Your task to perform on an android device: Go to eBay Image 0: 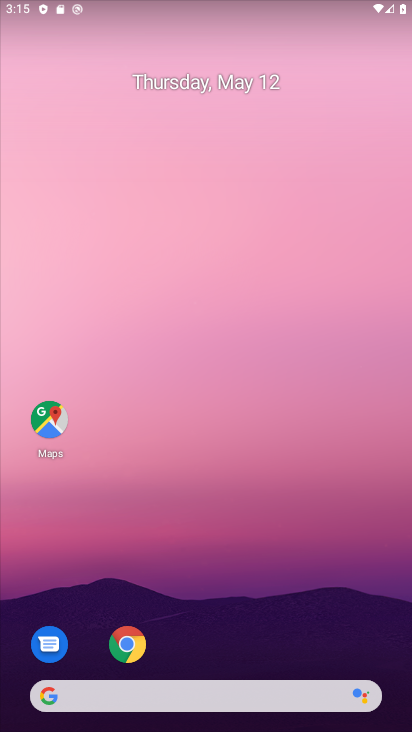
Step 0: click (118, 652)
Your task to perform on an android device: Go to eBay Image 1: 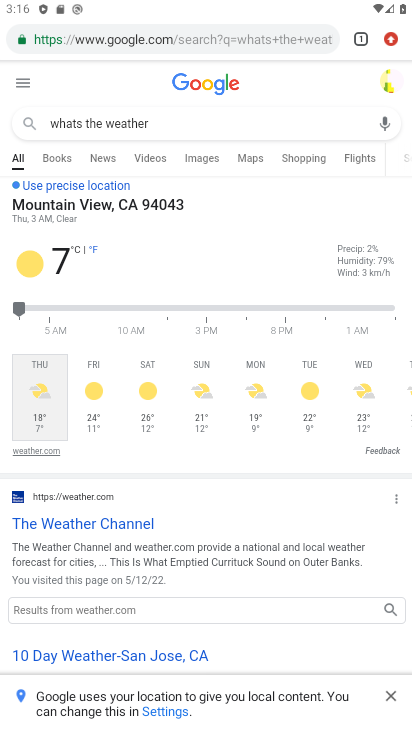
Step 1: click (158, 44)
Your task to perform on an android device: Go to eBay Image 2: 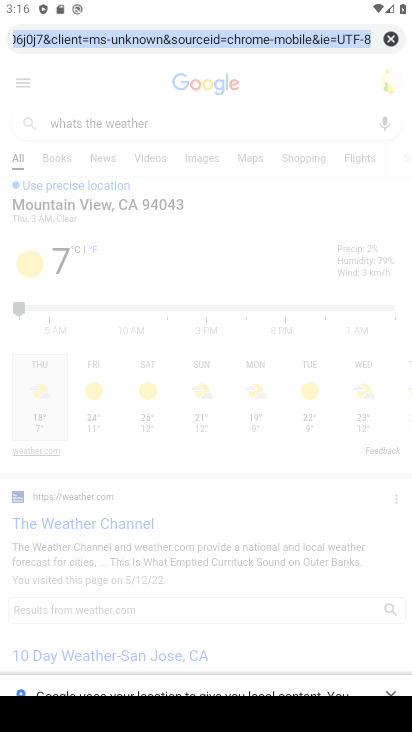
Step 2: type "ebay"
Your task to perform on an android device: Go to eBay Image 3: 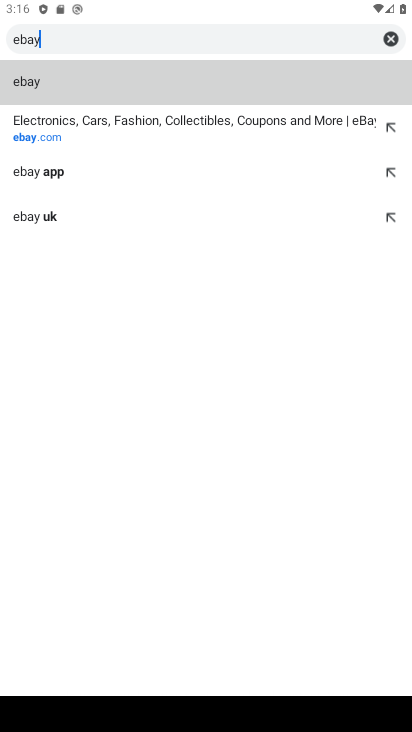
Step 3: click (44, 69)
Your task to perform on an android device: Go to eBay Image 4: 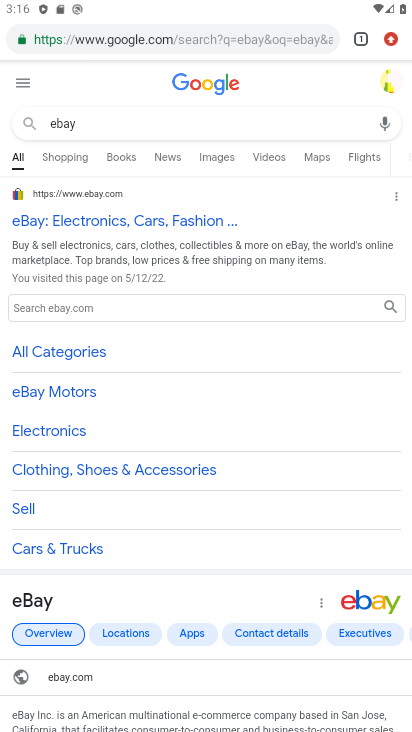
Step 4: click (84, 223)
Your task to perform on an android device: Go to eBay Image 5: 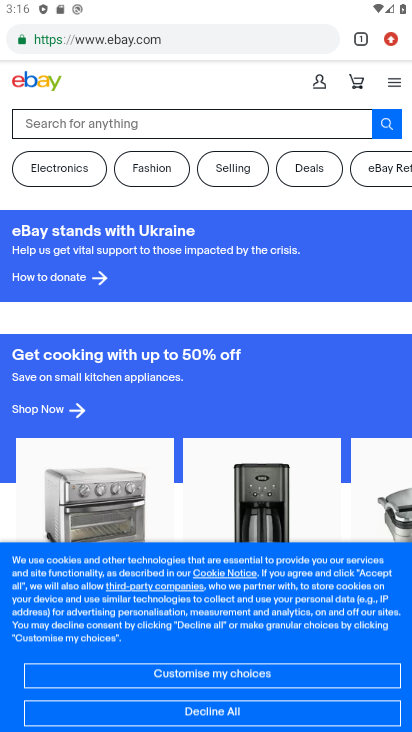
Step 5: task complete